Your task to perform on an android device: Go to Google Image 0: 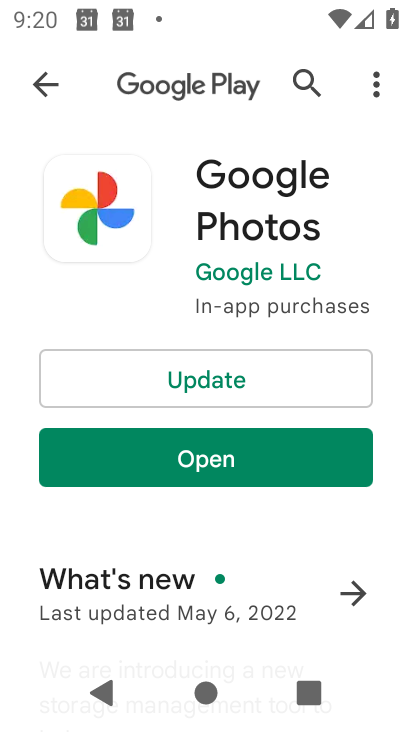
Step 0: press home button
Your task to perform on an android device: Go to Google Image 1: 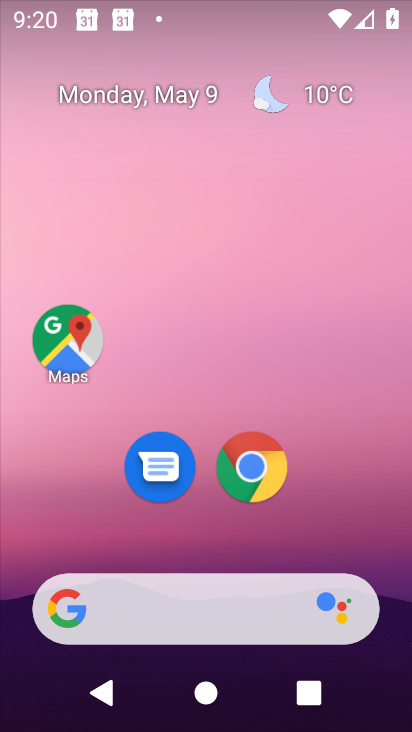
Step 1: drag from (352, 562) to (294, 10)
Your task to perform on an android device: Go to Google Image 2: 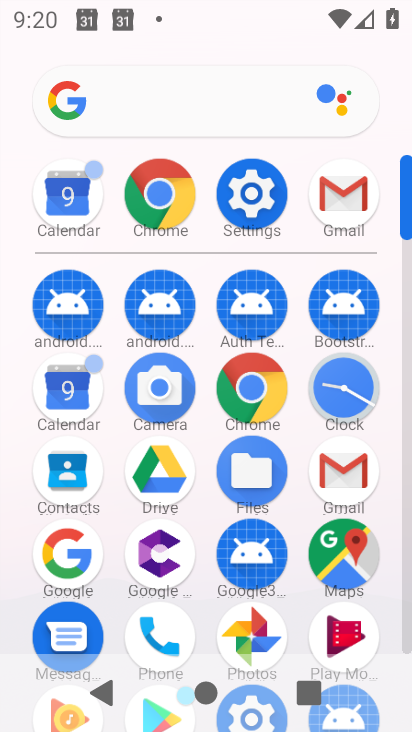
Step 2: click (64, 560)
Your task to perform on an android device: Go to Google Image 3: 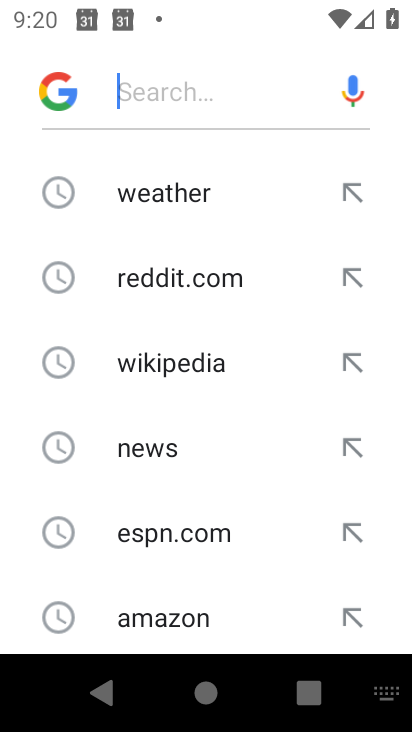
Step 3: task complete